Your task to perform on an android device: Go to sound settings Image 0: 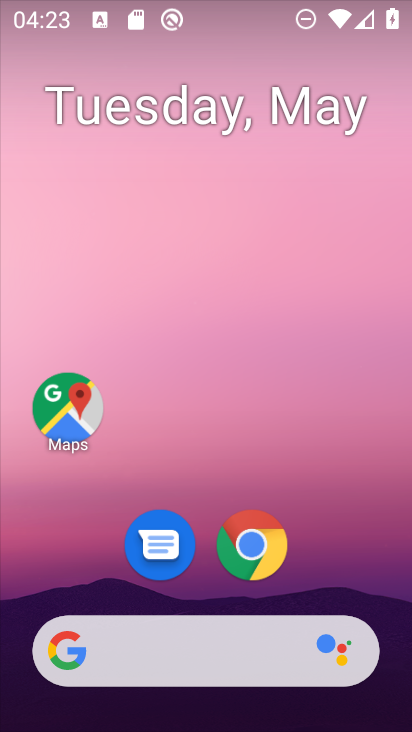
Step 0: drag from (392, 611) to (365, 100)
Your task to perform on an android device: Go to sound settings Image 1: 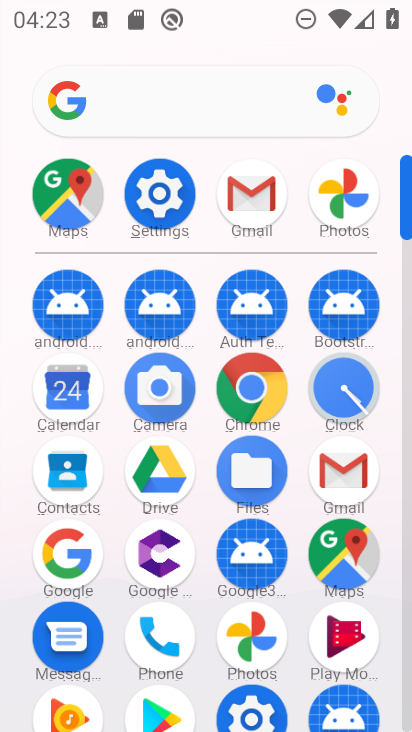
Step 1: click (408, 679)
Your task to perform on an android device: Go to sound settings Image 2: 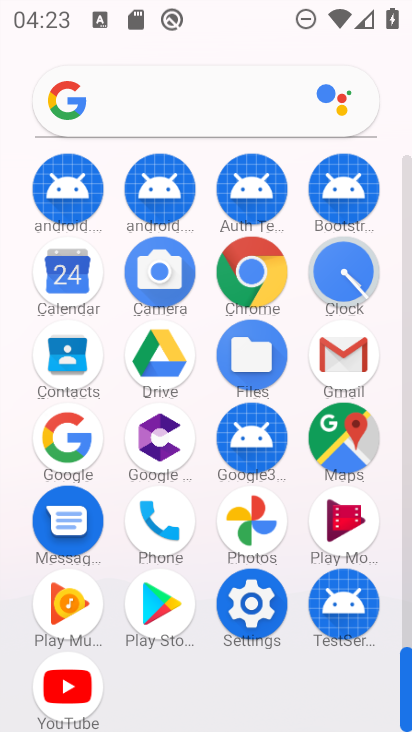
Step 2: click (252, 602)
Your task to perform on an android device: Go to sound settings Image 3: 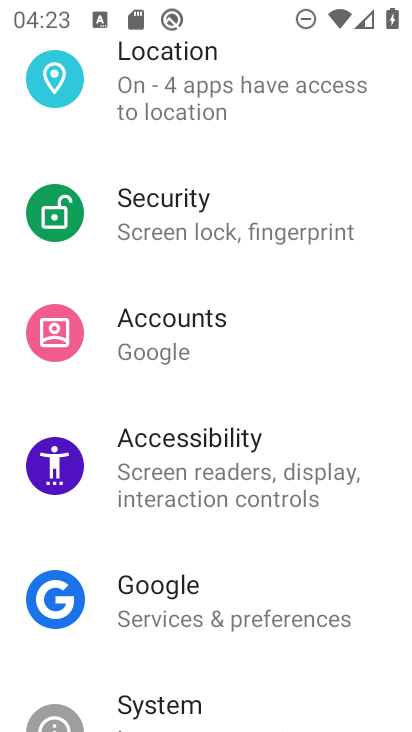
Step 3: drag from (320, 329) to (313, 559)
Your task to perform on an android device: Go to sound settings Image 4: 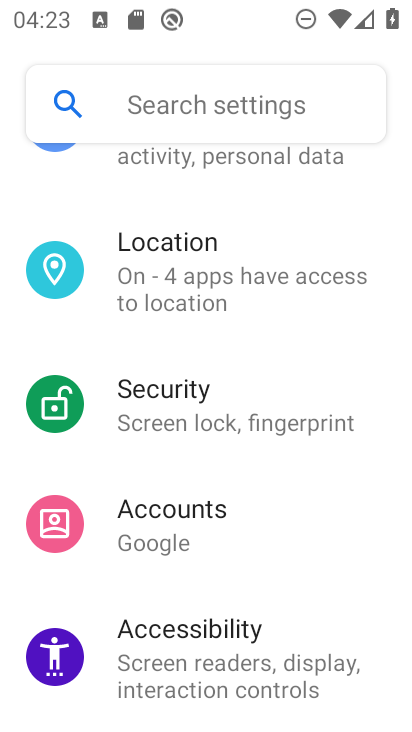
Step 4: drag from (318, 265) to (319, 561)
Your task to perform on an android device: Go to sound settings Image 5: 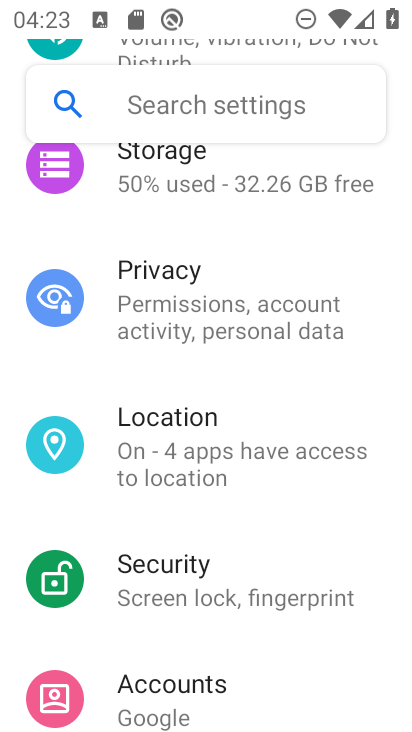
Step 5: drag from (347, 276) to (306, 626)
Your task to perform on an android device: Go to sound settings Image 6: 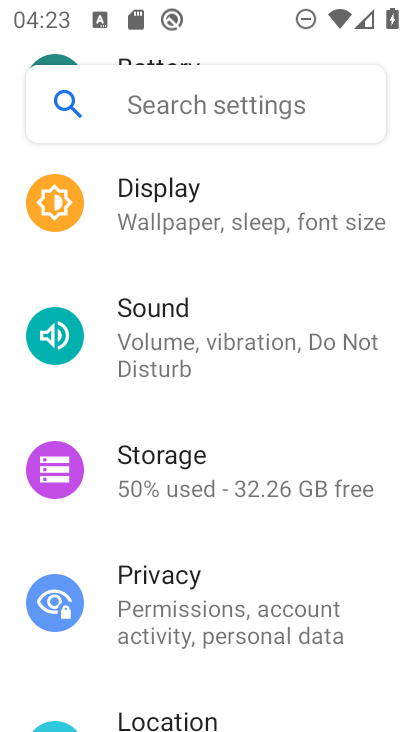
Step 6: click (150, 334)
Your task to perform on an android device: Go to sound settings Image 7: 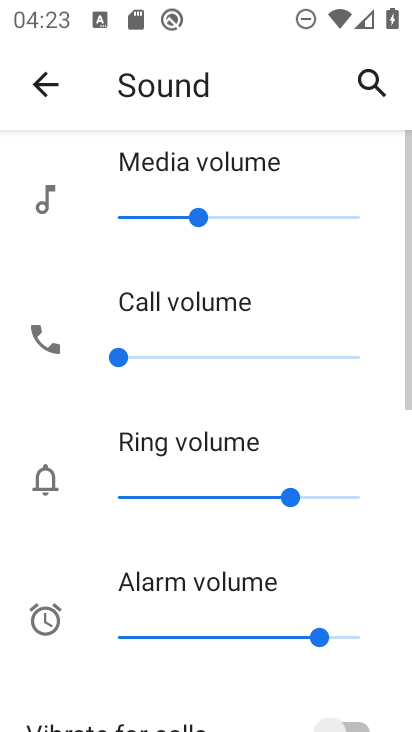
Step 7: drag from (346, 664) to (353, 235)
Your task to perform on an android device: Go to sound settings Image 8: 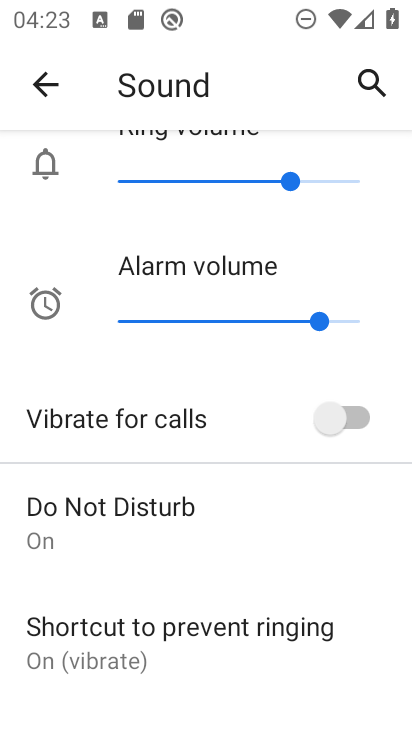
Step 8: drag from (332, 603) to (358, 242)
Your task to perform on an android device: Go to sound settings Image 9: 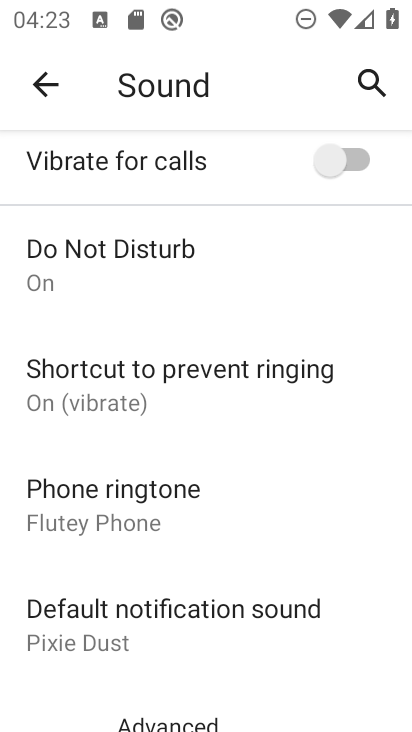
Step 9: drag from (310, 599) to (344, 229)
Your task to perform on an android device: Go to sound settings Image 10: 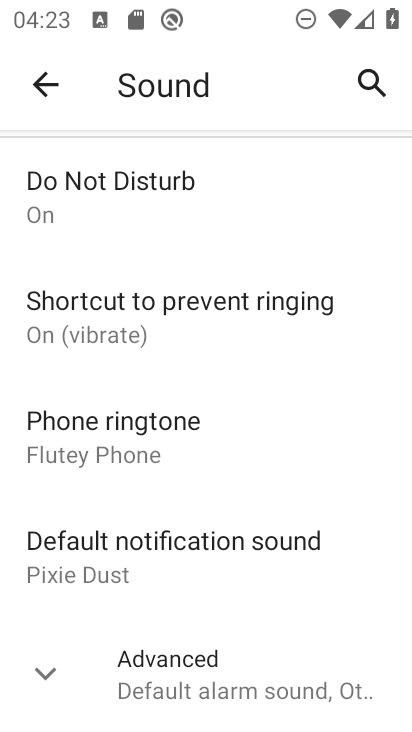
Step 10: click (43, 669)
Your task to perform on an android device: Go to sound settings Image 11: 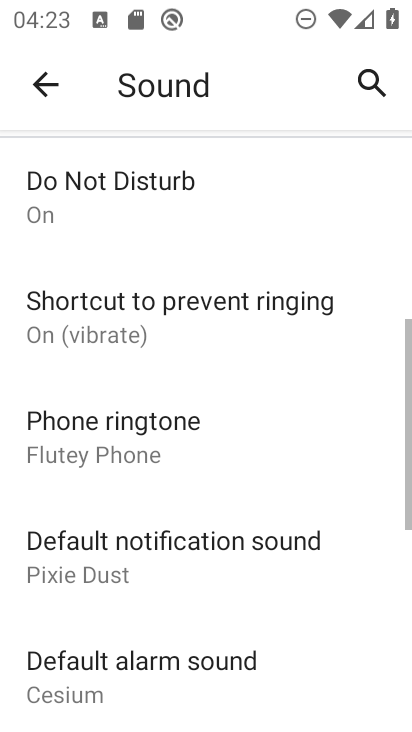
Step 11: task complete